Your task to perform on an android device: What is the news today? Image 0: 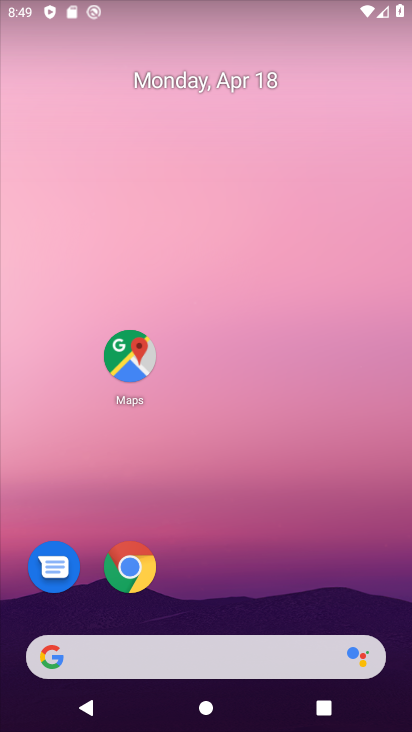
Step 0: click (249, 269)
Your task to perform on an android device: What is the news today? Image 1: 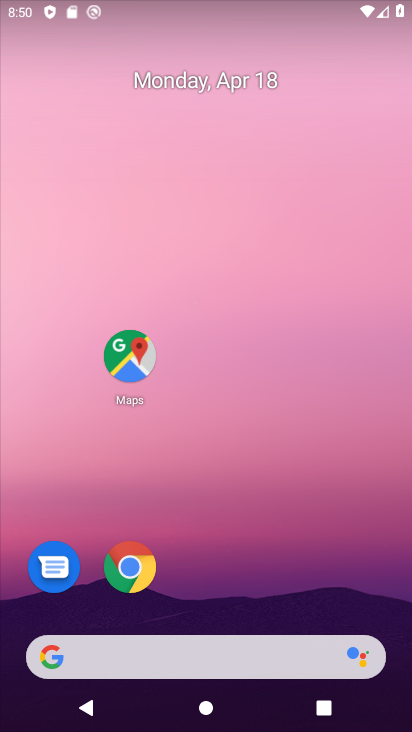
Step 1: drag from (282, 650) to (393, 293)
Your task to perform on an android device: What is the news today? Image 2: 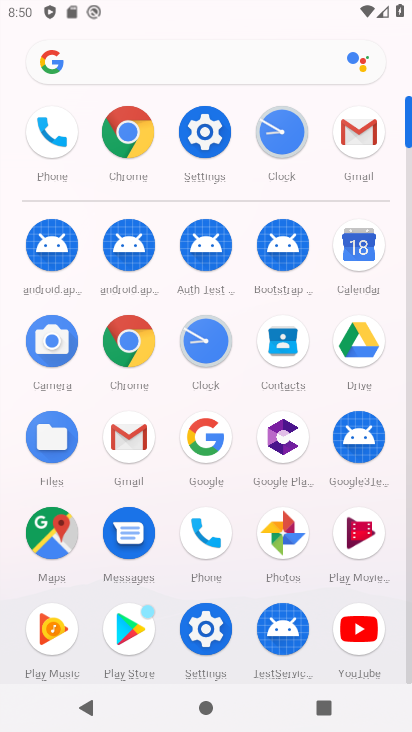
Step 2: click (90, 67)
Your task to perform on an android device: What is the news today? Image 3: 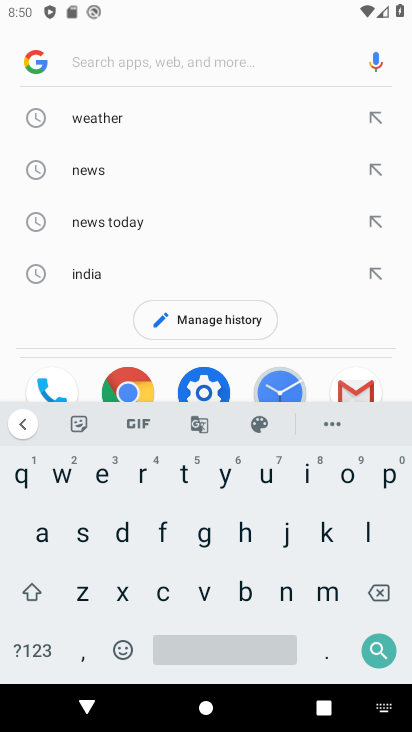
Step 3: click (110, 222)
Your task to perform on an android device: What is the news today? Image 4: 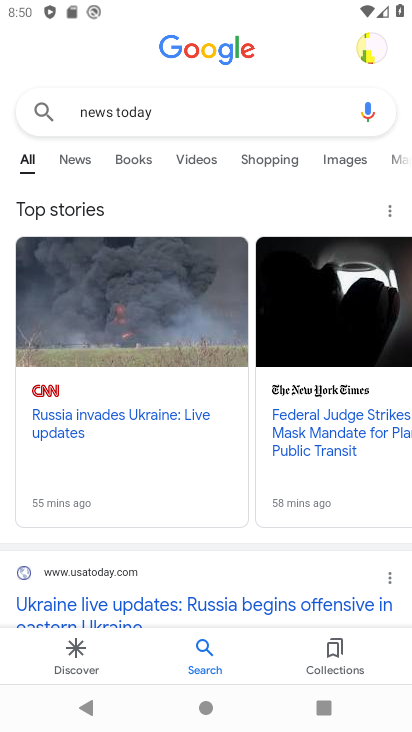
Step 4: task complete